Your task to perform on an android device: turn on the 24-hour format for clock Image 0: 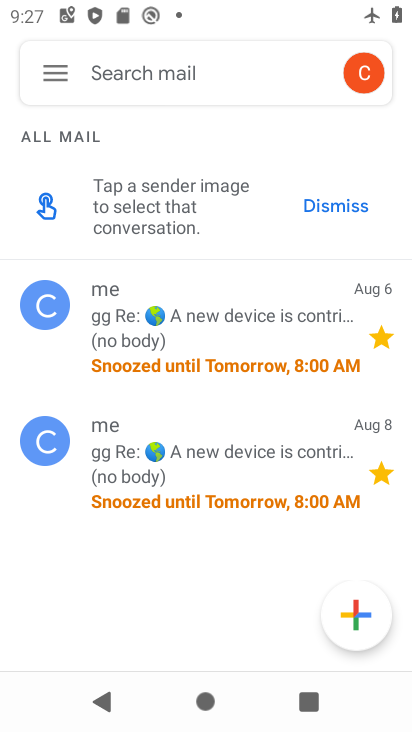
Step 0: press home button
Your task to perform on an android device: turn on the 24-hour format for clock Image 1: 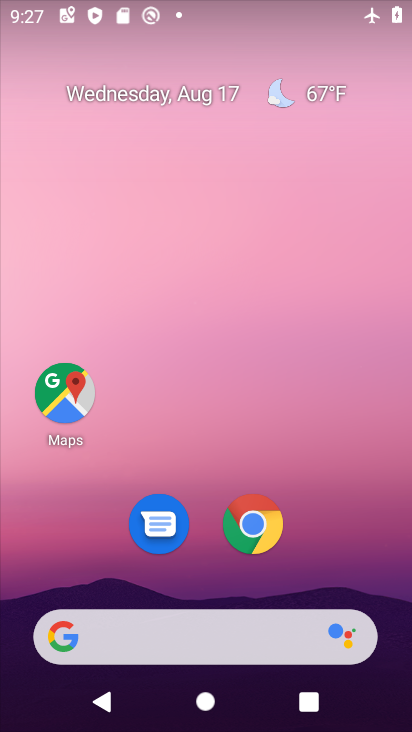
Step 1: drag from (301, 529) to (297, 0)
Your task to perform on an android device: turn on the 24-hour format for clock Image 2: 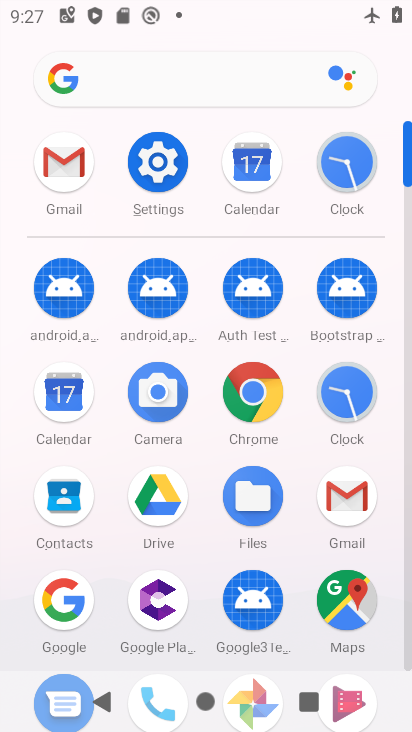
Step 2: click (347, 158)
Your task to perform on an android device: turn on the 24-hour format for clock Image 3: 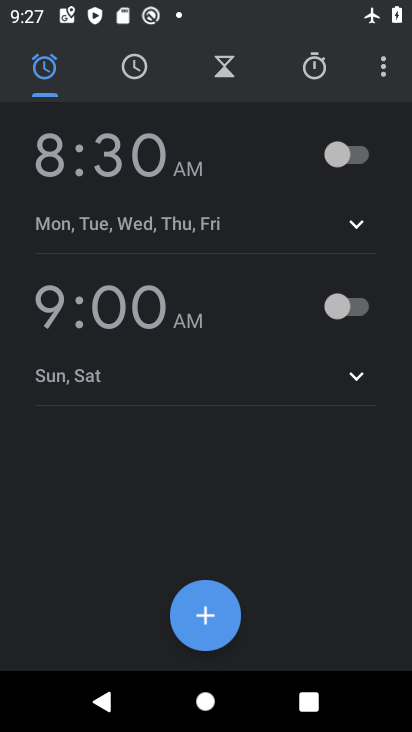
Step 3: click (390, 74)
Your task to perform on an android device: turn on the 24-hour format for clock Image 4: 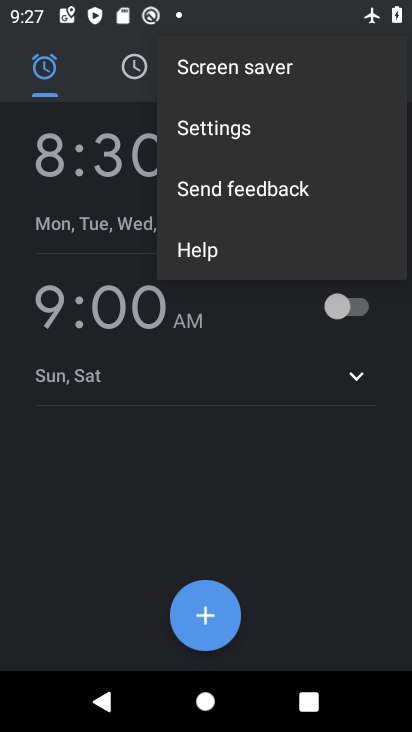
Step 4: click (310, 140)
Your task to perform on an android device: turn on the 24-hour format for clock Image 5: 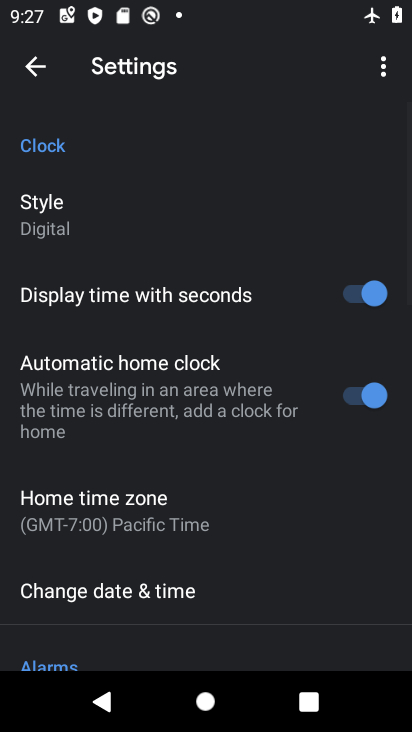
Step 5: click (261, 602)
Your task to perform on an android device: turn on the 24-hour format for clock Image 6: 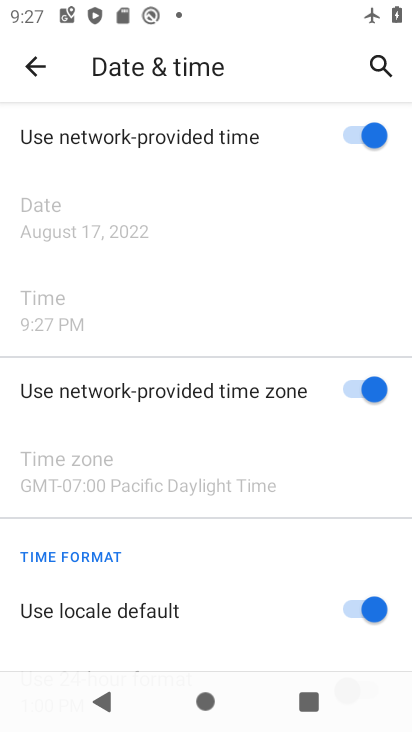
Step 6: click (354, 607)
Your task to perform on an android device: turn on the 24-hour format for clock Image 7: 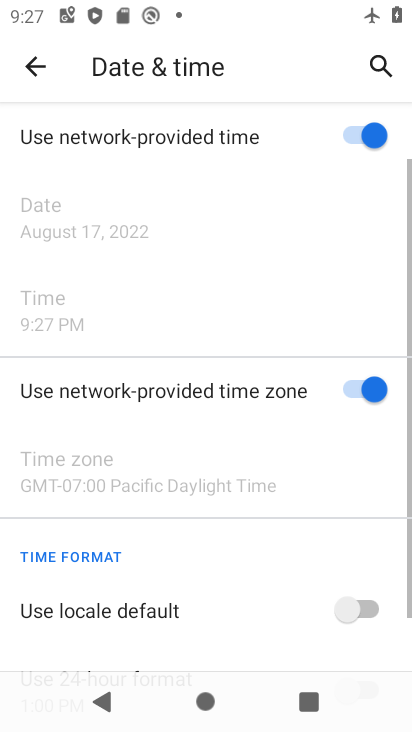
Step 7: drag from (267, 565) to (293, 444)
Your task to perform on an android device: turn on the 24-hour format for clock Image 8: 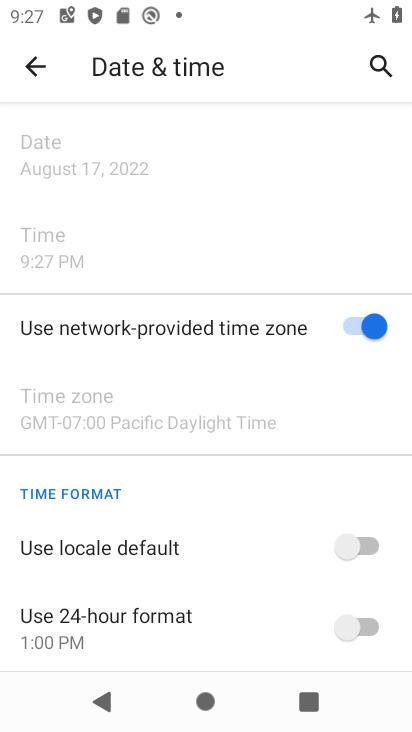
Step 8: click (371, 618)
Your task to perform on an android device: turn on the 24-hour format for clock Image 9: 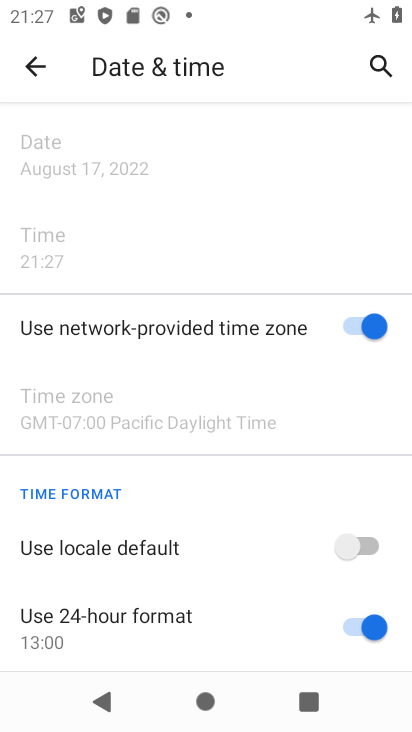
Step 9: task complete